Your task to perform on an android device: Open calendar and show me the fourth week of next month Image 0: 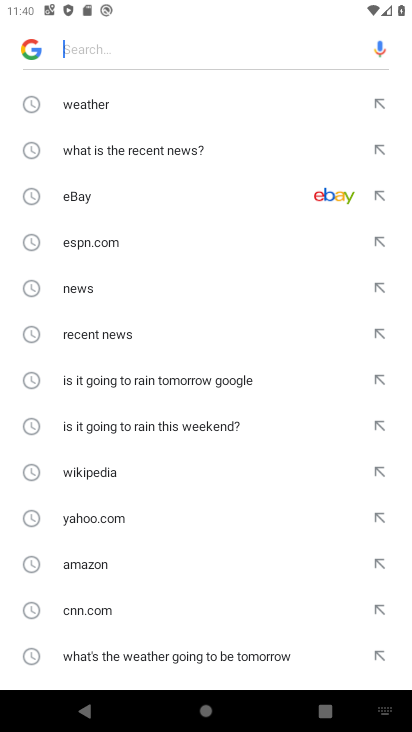
Step 0: press home button
Your task to perform on an android device: Open calendar and show me the fourth week of next month Image 1: 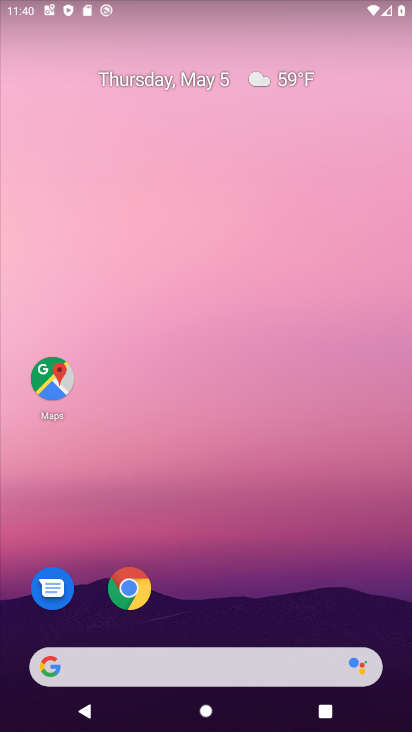
Step 1: drag from (247, 542) to (304, 35)
Your task to perform on an android device: Open calendar and show me the fourth week of next month Image 2: 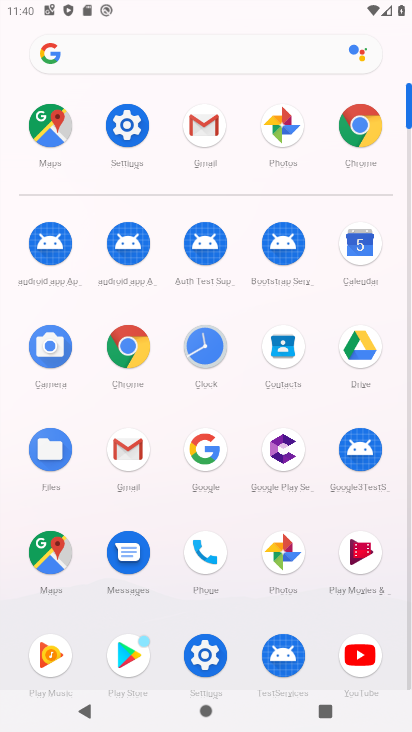
Step 2: click (367, 238)
Your task to perform on an android device: Open calendar and show me the fourth week of next month Image 3: 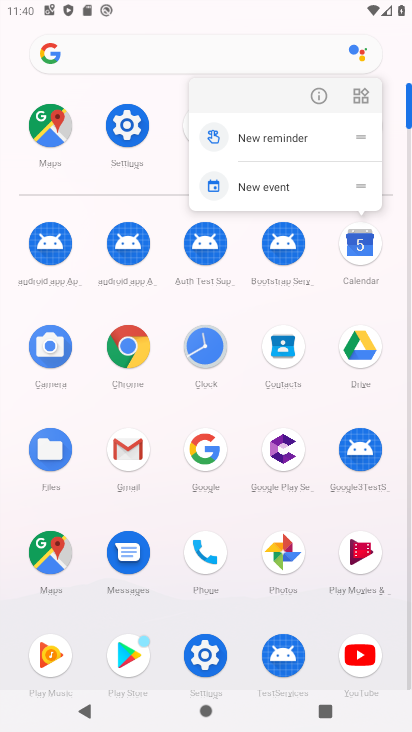
Step 3: click (360, 244)
Your task to perform on an android device: Open calendar and show me the fourth week of next month Image 4: 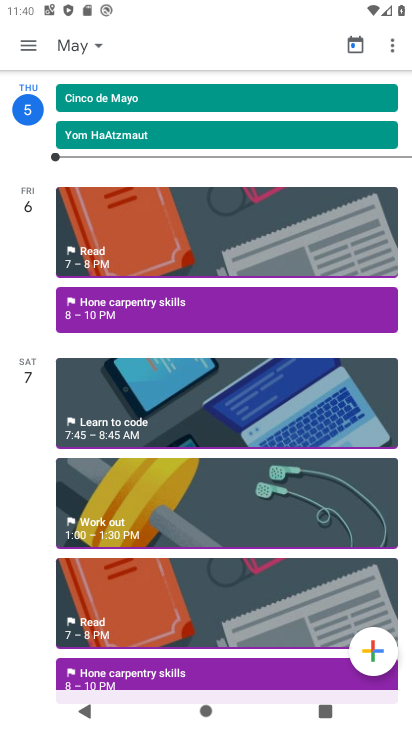
Step 4: click (32, 46)
Your task to perform on an android device: Open calendar and show me the fourth week of next month Image 5: 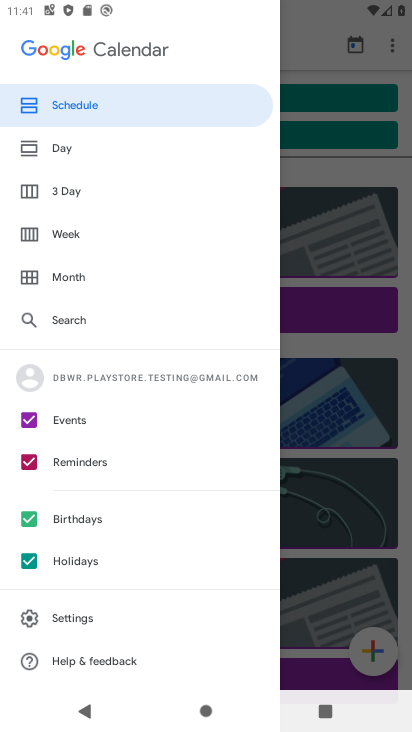
Step 5: click (65, 233)
Your task to perform on an android device: Open calendar and show me the fourth week of next month Image 6: 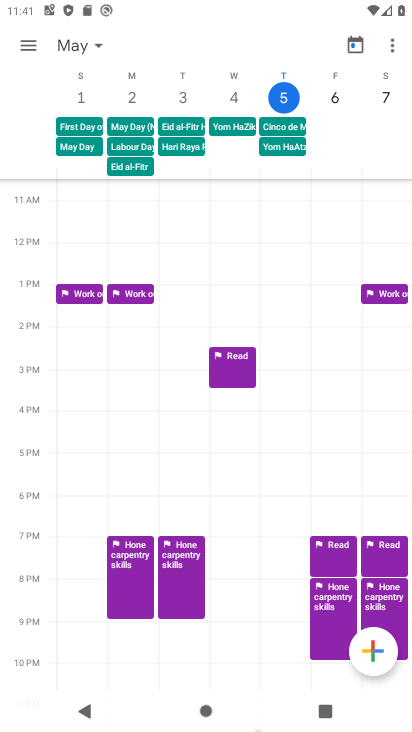
Step 6: task complete